Your task to perform on an android device: show emergency info Image 0: 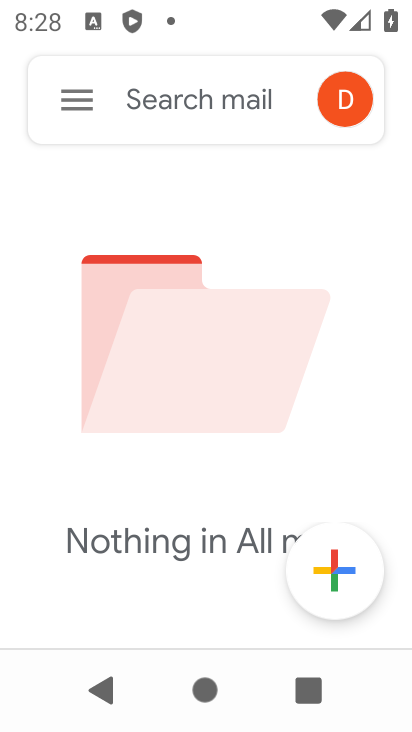
Step 0: press home button
Your task to perform on an android device: show emergency info Image 1: 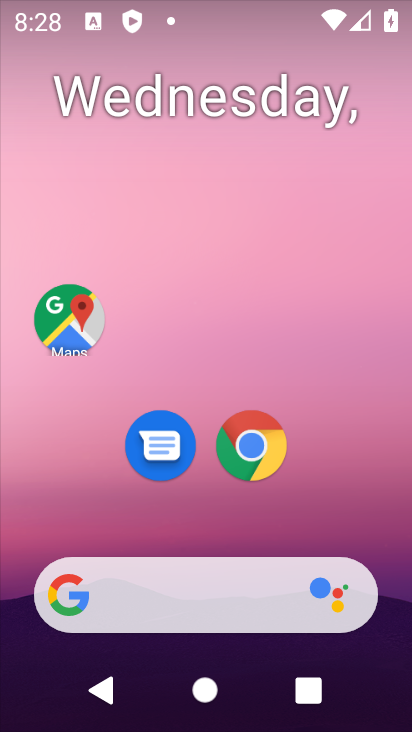
Step 1: drag from (285, 478) to (229, 6)
Your task to perform on an android device: show emergency info Image 2: 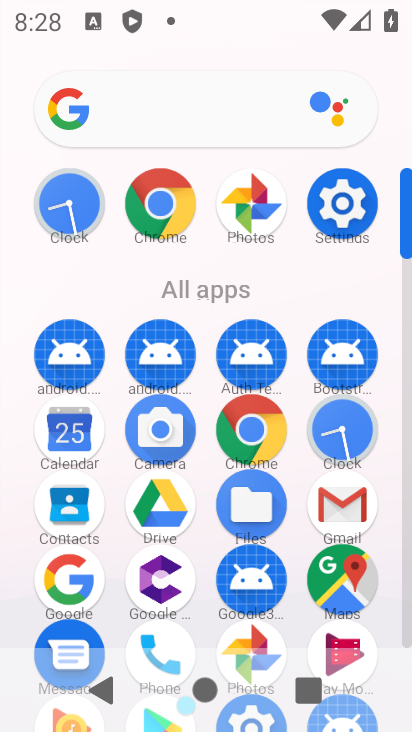
Step 2: click (364, 202)
Your task to perform on an android device: show emergency info Image 3: 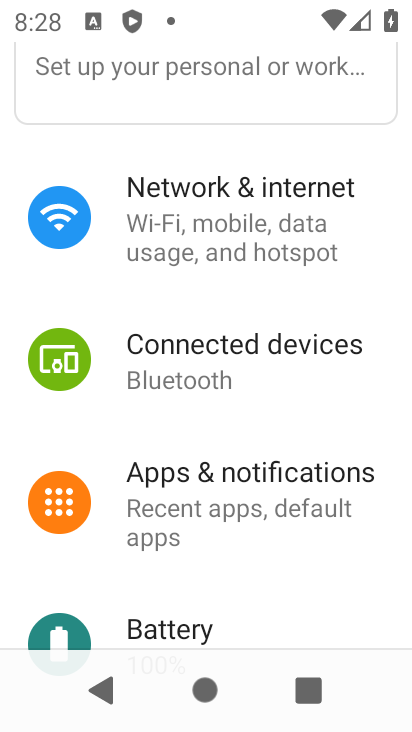
Step 3: drag from (239, 649) to (226, 156)
Your task to perform on an android device: show emergency info Image 4: 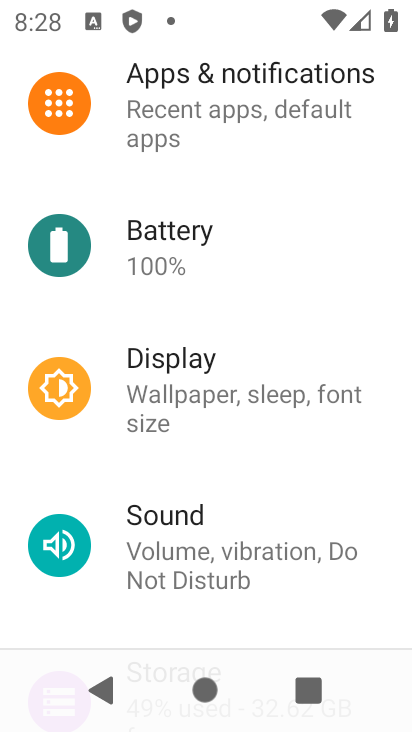
Step 4: drag from (162, 593) to (231, 110)
Your task to perform on an android device: show emergency info Image 5: 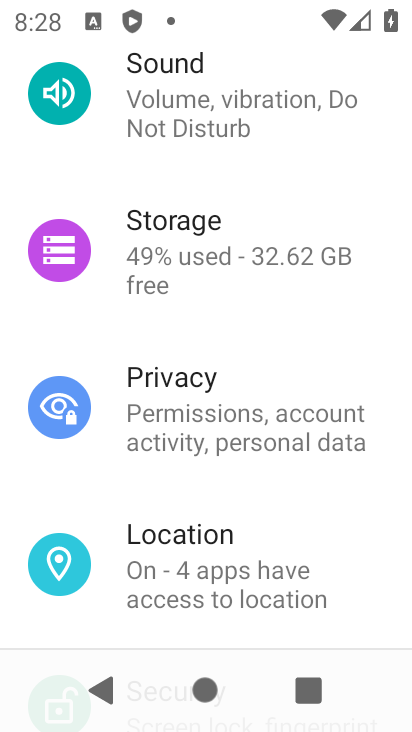
Step 5: drag from (170, 523) to (257, 107)
Your task to perform on an android device: show emergency info Image 6: 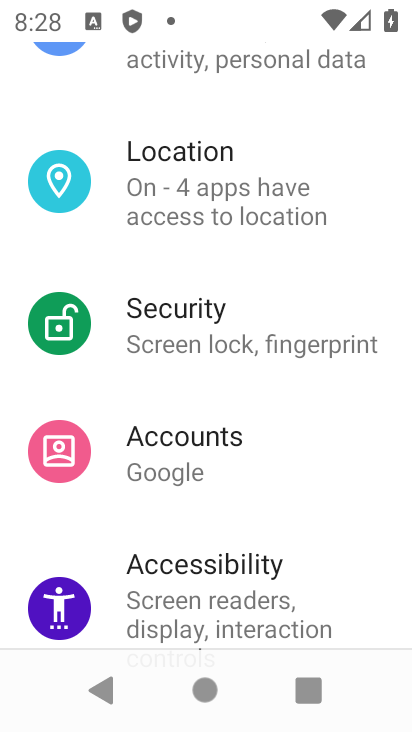
Step 6: drag from (261, 562) to (298, 105)
Your task to perform on an android device: show emergency info Image 7: 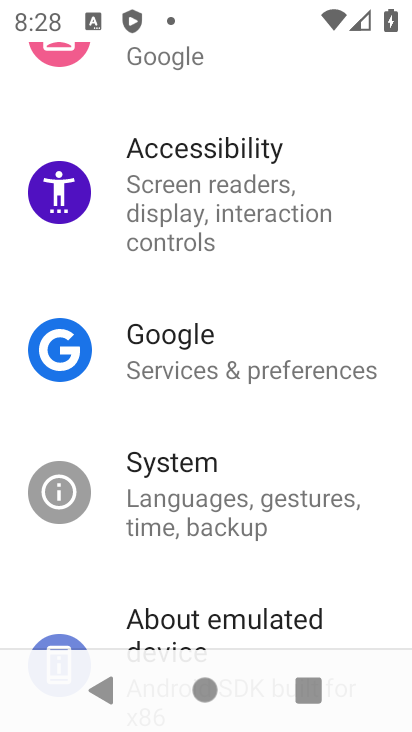
Step 7: drag from (254, 559) to (284, 132)
Your task to perform on an android device: show emergency info Image 8: 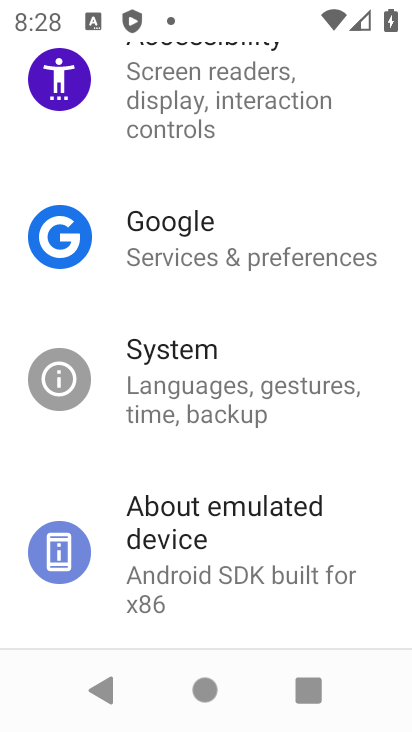
Step 8: drag from (254, 595) to (296, 251)
Your task to perform on an android device: show emergency info Image 9: 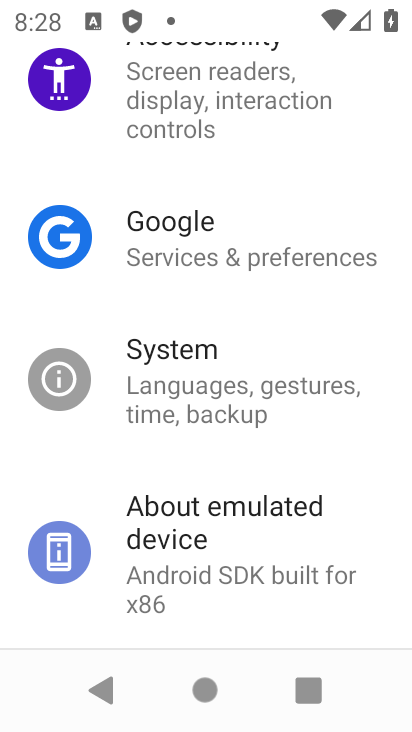
Step 9: click (226, 528)
Your task to perform on an android device: show emergency info Image 10: 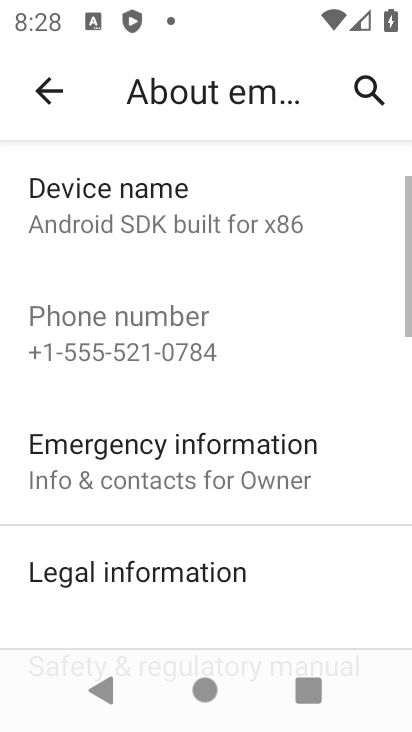
Step 10: click (181, 472)
Your task to perform on an android device: show emergency info Image 11: 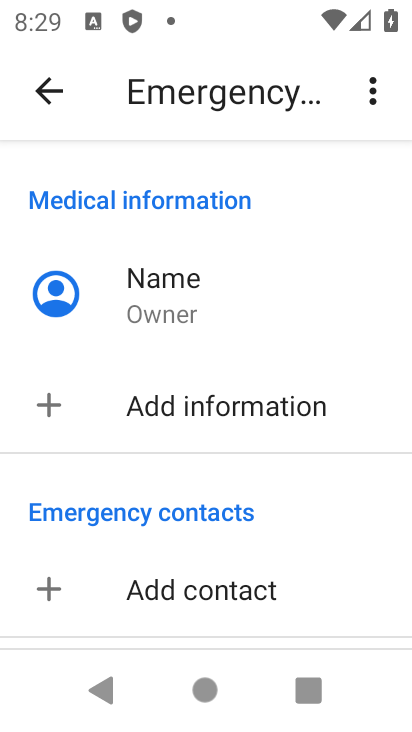
Step 11: task complete